Your task to perform on an android device: turn off data saver in the chrome app Image 0: 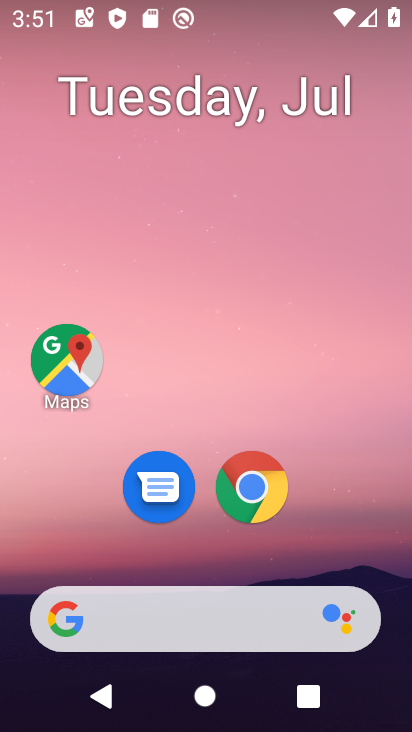
Step 0: click (242, 485)
Your task to perform on an android device: turn off data saver in the chrome app Image 1: 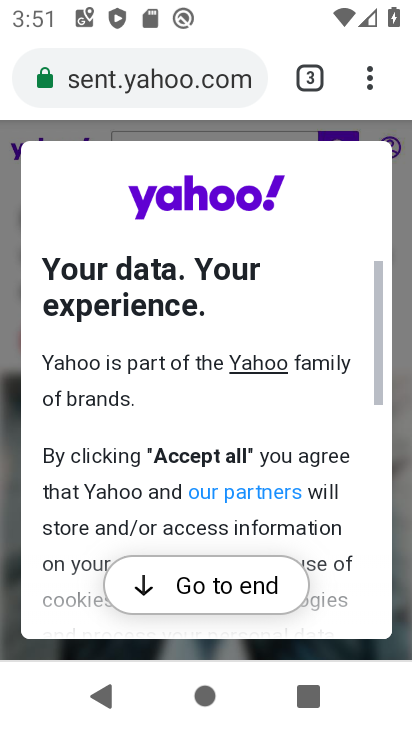
Step 1: drag from (375, 70) to (121, 540)
Your task to perform on an android device: turn off data saver in the chrome app Image 2: 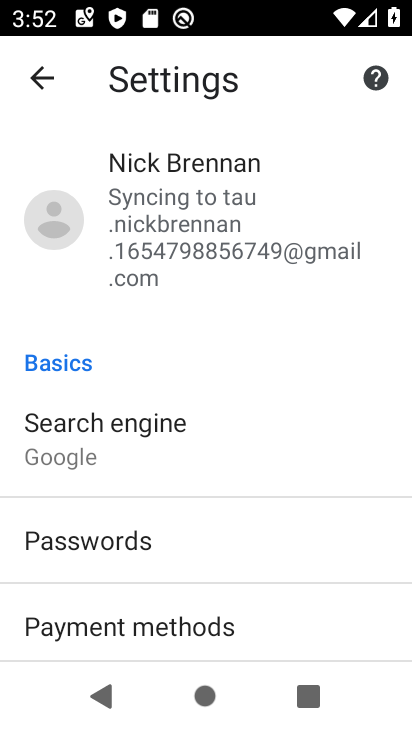
Step 2: drag from (139, 639) to (122, 146)
Your task to perform on an android device: turn off data saver in the chrome app Image 3: 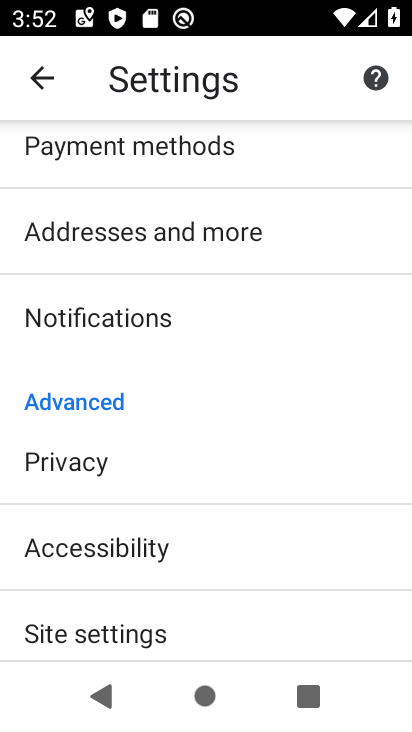
Step 3: drag from (147, 590) to (181, 61)
Your task to perform on an android device: turn off data saver in the chrome app Image 4: 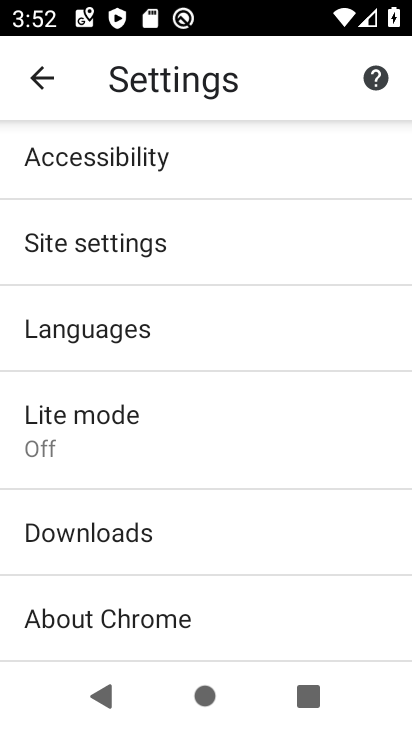
Step 4: click (50, 432)
Your task to perform on an android device: turn off data saver in the chrome app Image 5: 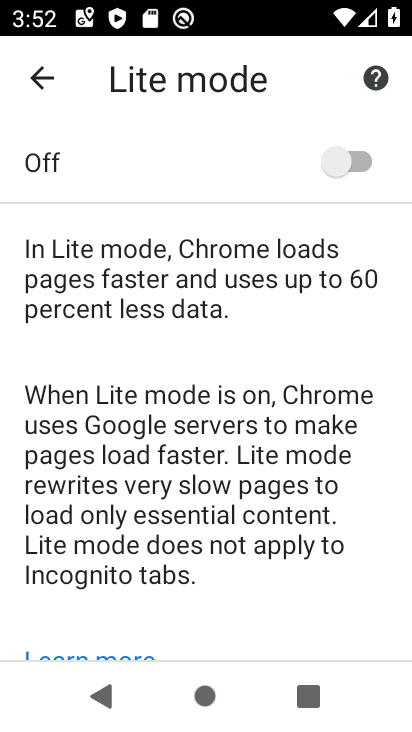
Step 5: task complete